Your task to perform on an android device: turn off priority inbox in the gmail app Image 0: 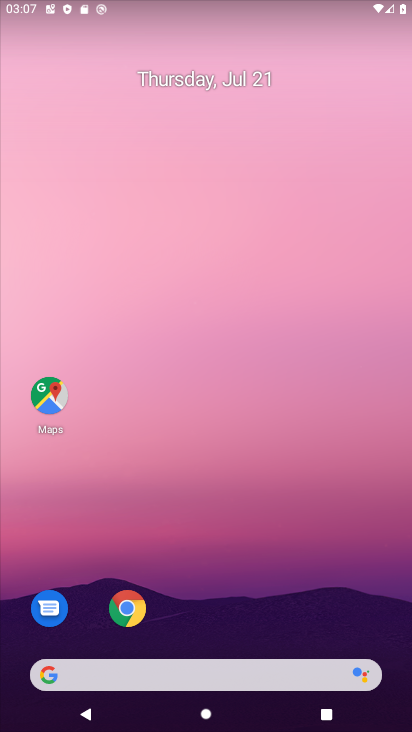
Step 0: drag from (315, 565) to (411, 4)
Your task to perform on an android device: turn off priority inbox in the gmail app Image 1: 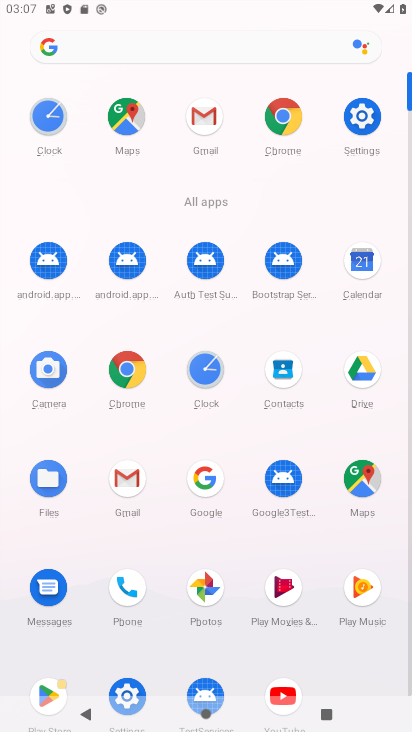
Step 1: click (122, 489)
Your task to perform on an android device: turn off priority inbox in the gmail app Image 2: 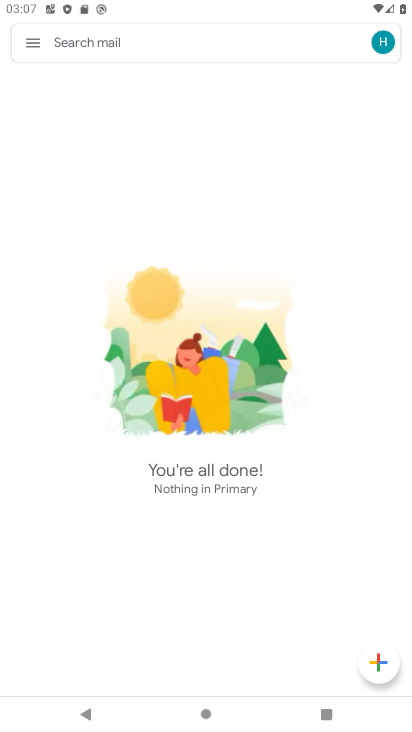
Step 2: drag from (27, 41) to (38, 280)
Your task to perform on an android device: turn off priority inbox in the gmail app Image 3: 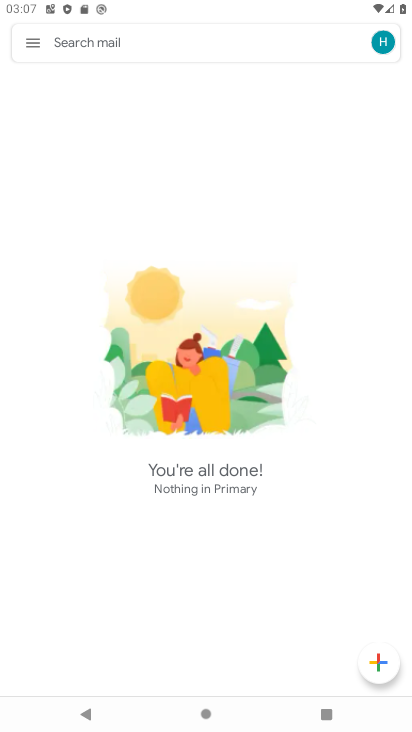
Step 3: click (43, 49)
Your task to perform on an android device: turn off priority inbox in the gmail app Image 4: 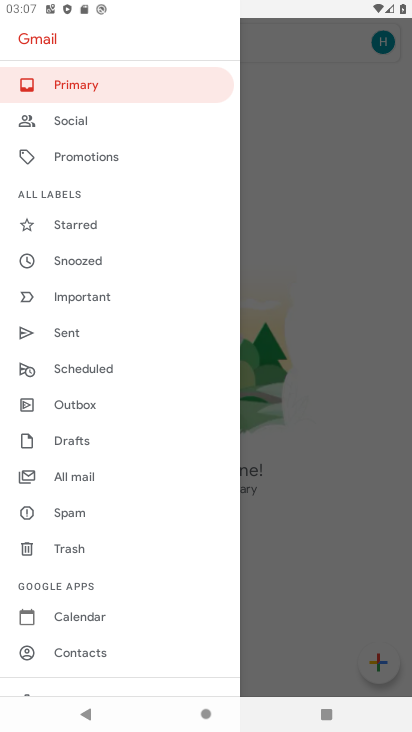
Step 4: drag from (68, 622) to (152, 204)
Your task to perform on an android device: turn off priority inbox in the gmail app Image 5: 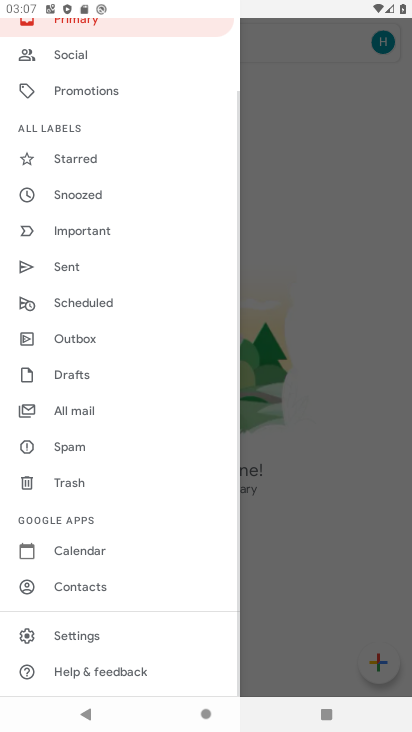
Step 5: click (104, 630)
Your task to perform on an android device: turn off priority inbox in the gmail app Image 6: 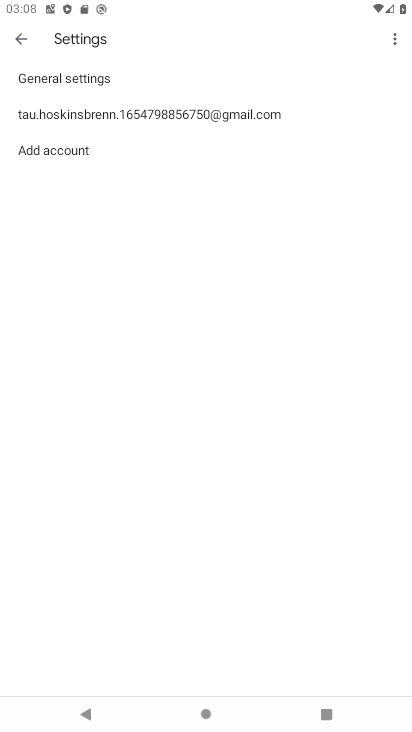
Step 6: click (161, 109)
Your task to perform on an android device: turn off priority inbox in the gmail app Image 7: 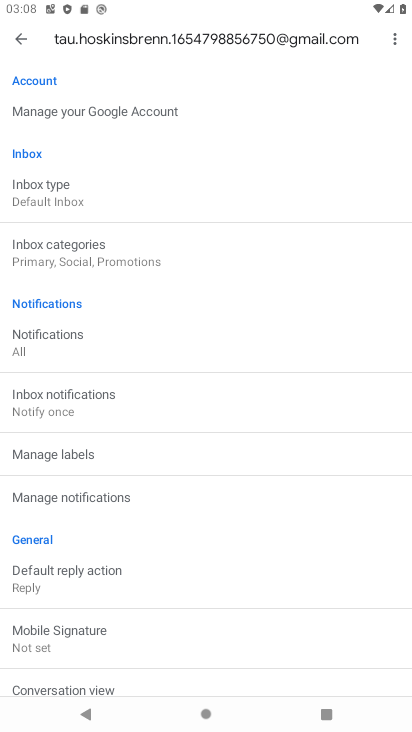
Step 7: task complete